Your task to perform on an android device: Go to battery settings Image 0: 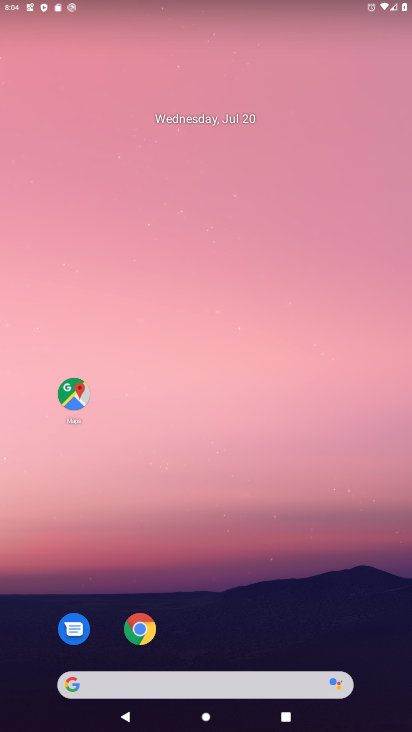
Step 0: drag from (169, 610) to (199, 7)
Your task to perform on an android device: Go to battery settings Image 1: 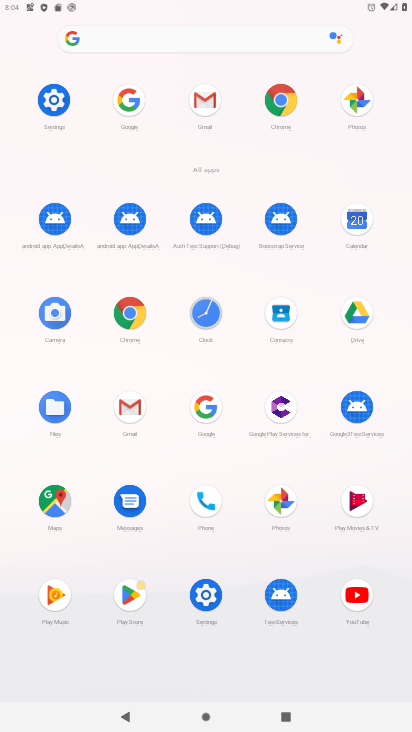
Step 1: click (57, 112)
Your task to perform on an android device: Go to battery settings Image 2: 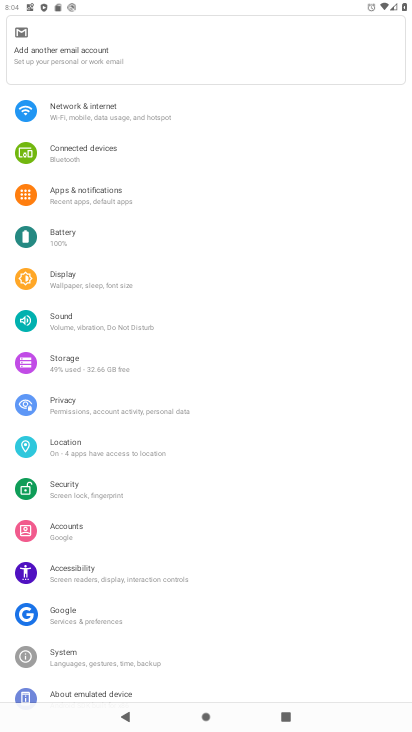
Step 2: click (70, 235)
Your task to perform on an android device: Go to battery settings Image 3: 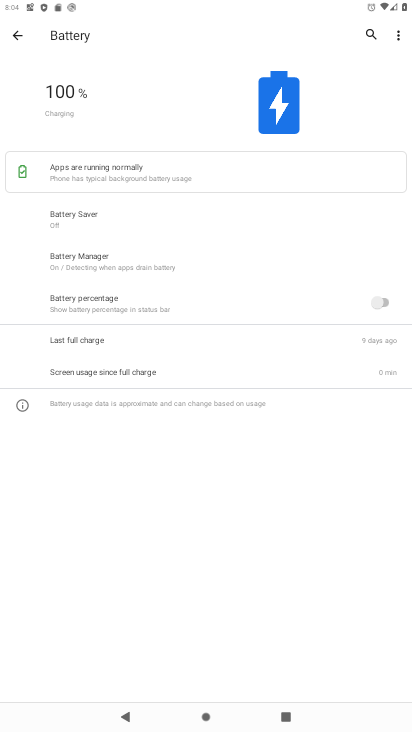
Step 3: task complete